Your task to perform on an android device: turn off location history Image 0: 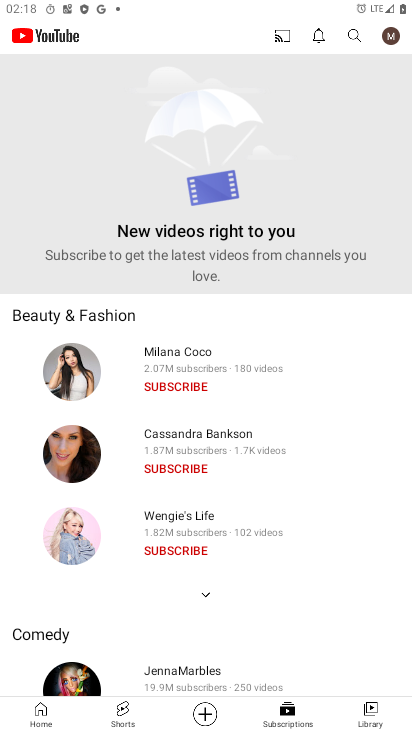
Step 0: press home button
Your task to perform on an android device: turn off location history Image 1: 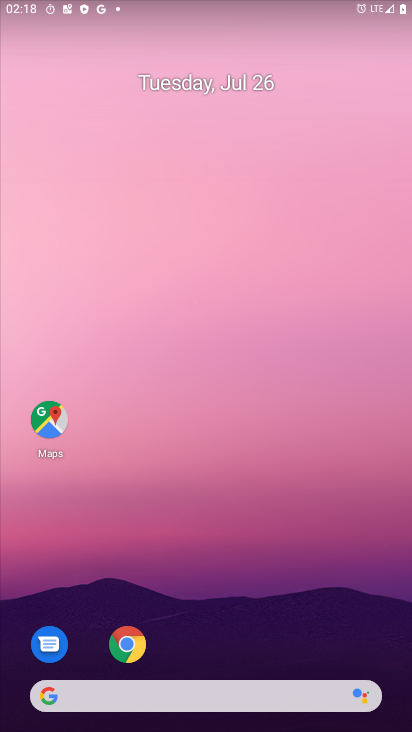
Step 1: click (45, 424)
Your task to perform on an android device: turn off location history Image 2: 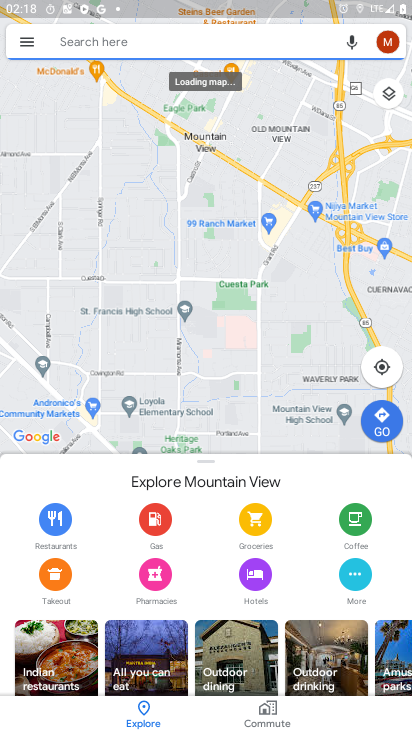
Step 2: click (30, 45)
Your task to perform on an android device: turn off location history Image 3: 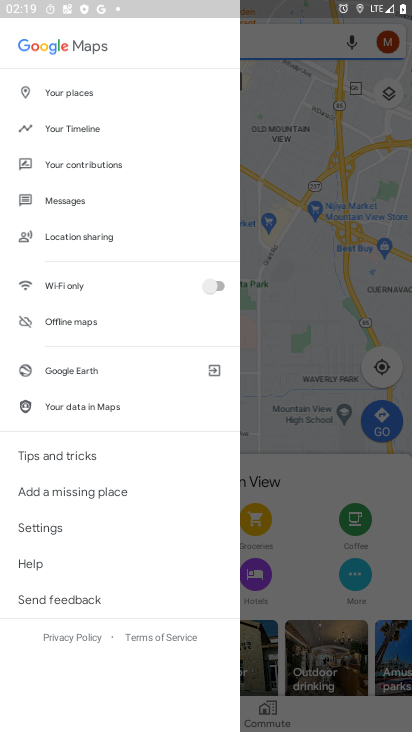
Step 3: click (55, 134)
Your task to perform on an android device: turn off location history Image 4: 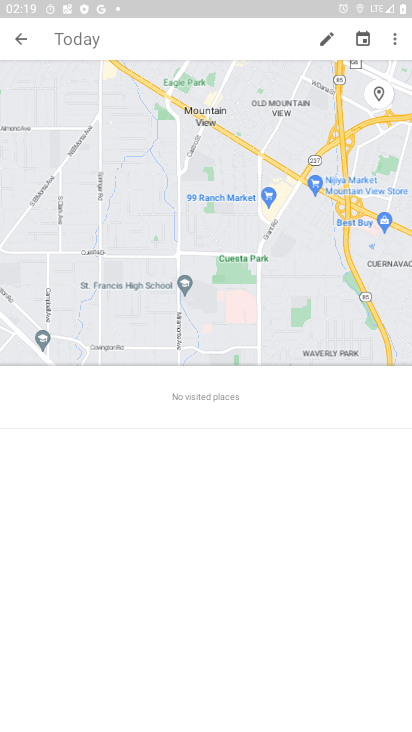
Step 4: click (397, 39)
Your task to perform on an android device: turn off location history Image 5: 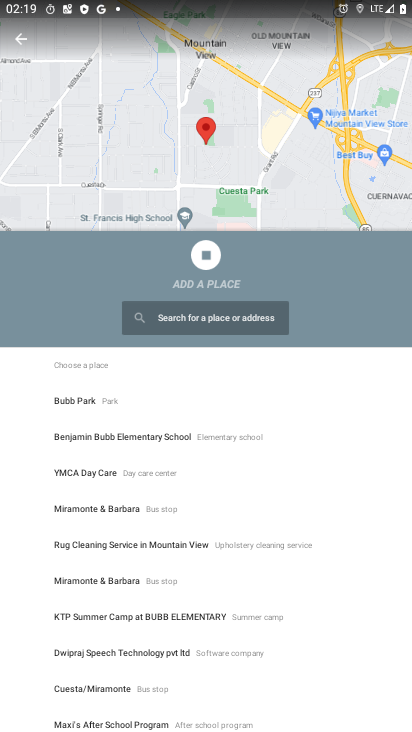
Step 5: click (17, 43)
Your task to perform on an android device: turn off location history Image 6: 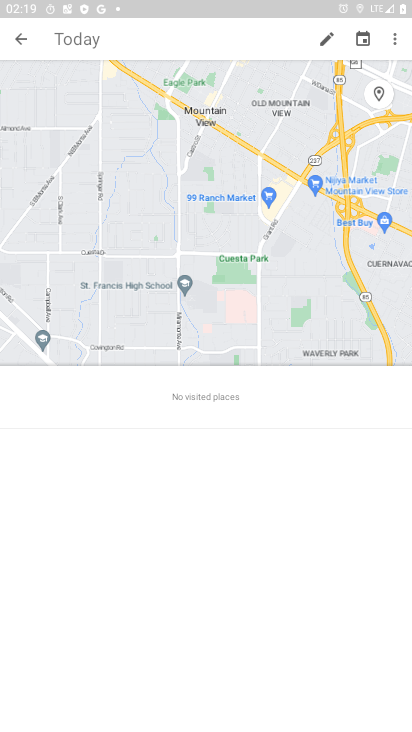
Step 6: click (398, 42)
Your task to perform on an android device: turn off location history Image 7: 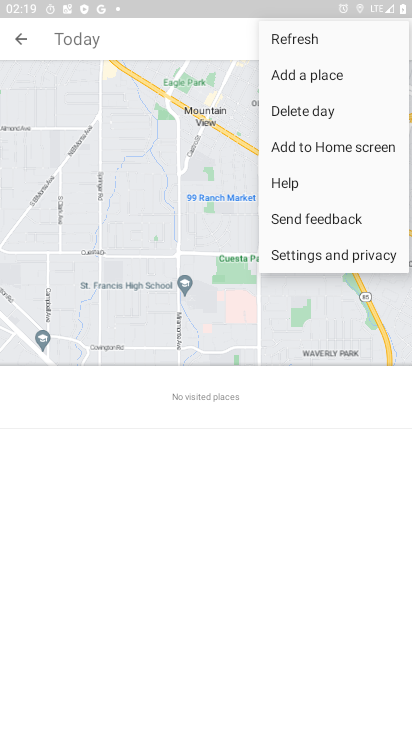
Step 7: click (301, 253)
Your task to perform on an android device: turn off location history Image 8: 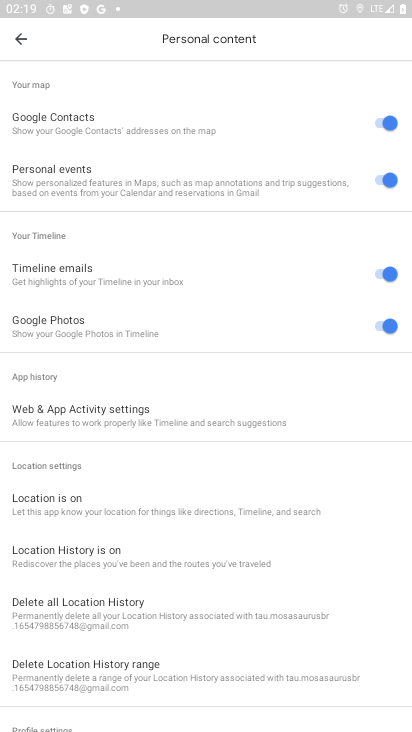
Step 8: click (47, 565)
Your task to perform on an android device: turn off location history Image 9: 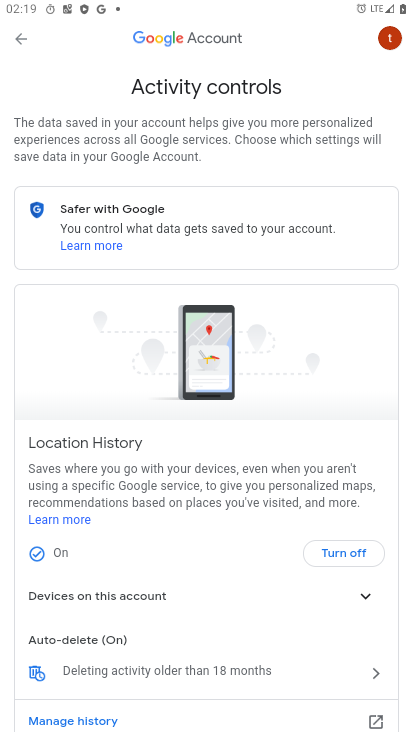
Step 9: click (362, 555)
Your task to perform on an android device: turn off location history Image 10: 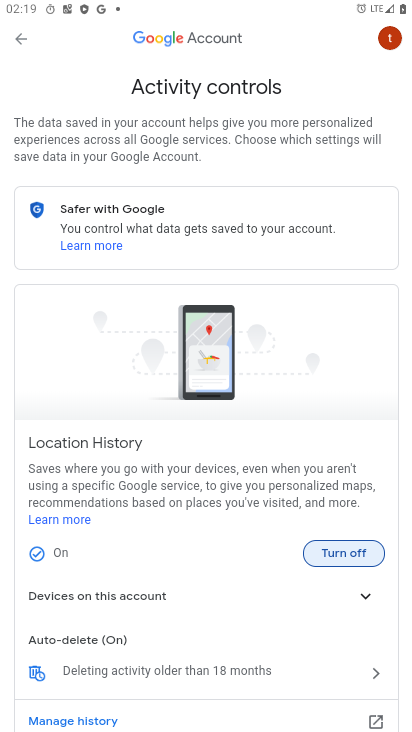
Step 10: click (344, 553)
Your task to perform on an android device: turn off location history Image 11: 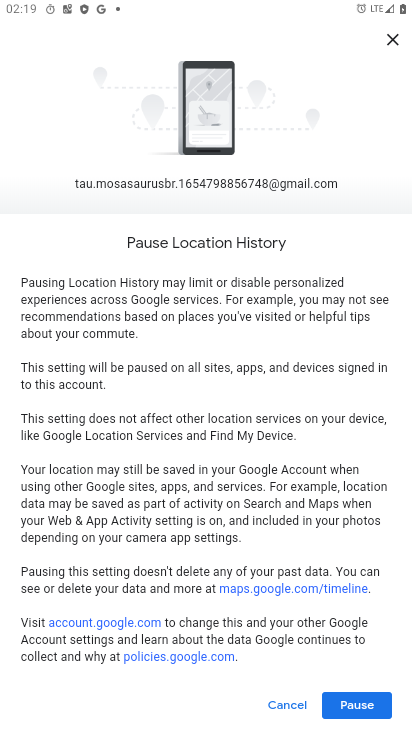
Step 11: drag from (220, 571) to (225, 323)
Your task to perform on an android device: turn off location history Image 12: 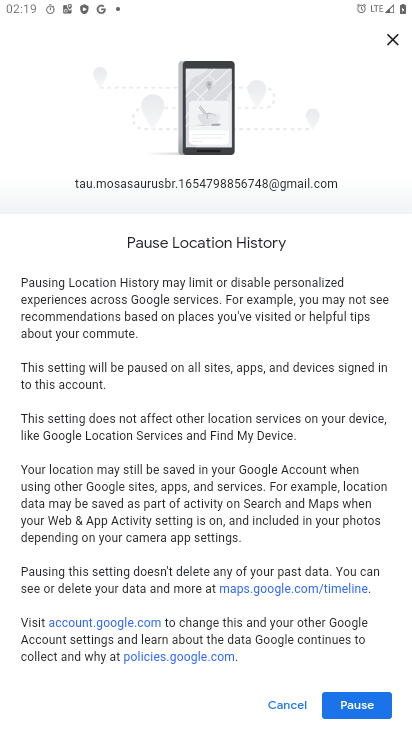
Step 12: click (366, 715)
Your task to perform on an android device: turn off location history Image 13: 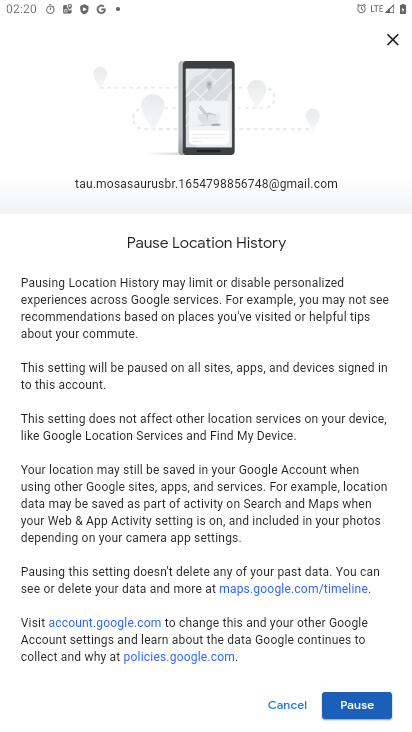
Step 13: click (358, 705)
Your task to perform on an android device: turn off location history Image 14: 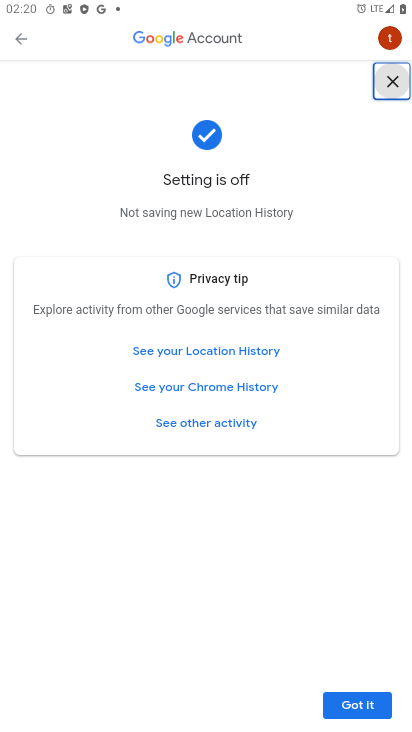
Step 14: click (355, 698)
Your task to perform on an android device: turn off location history Image 15: 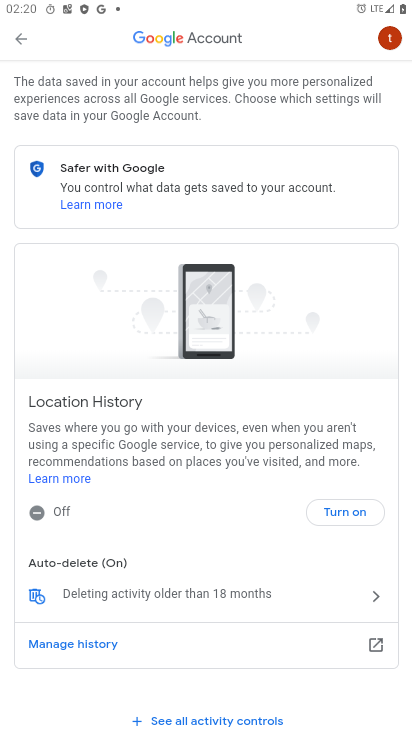
Step 15: task complete